Your task to perform on an android device: Open Chrome and go to the settings page Image 0: 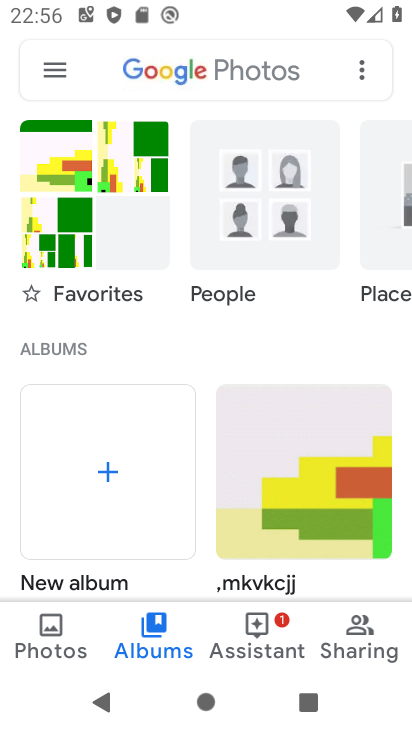
Step 0: press home button
Your task to perform on an android device: Open Chrome and go to the settings page Image 1: 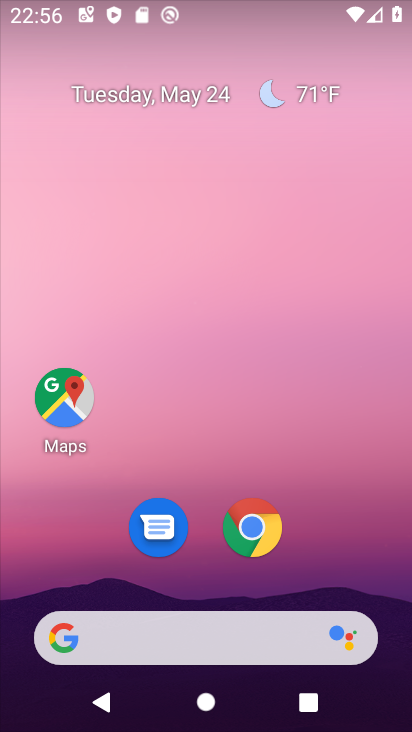
Step 1: click (250, 538)
Your task to perform on an android device: Open Chrome and go to the settings page Image 2: 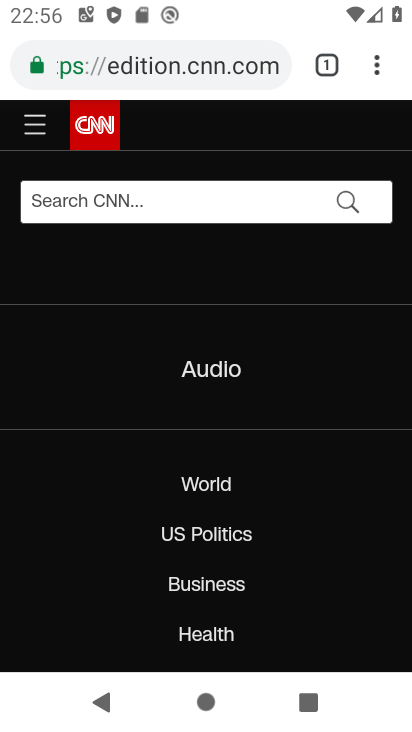
Step 2: click (386, 70)
Your task to perform on an android device: Open Chrome and go to the settings page Image 3: 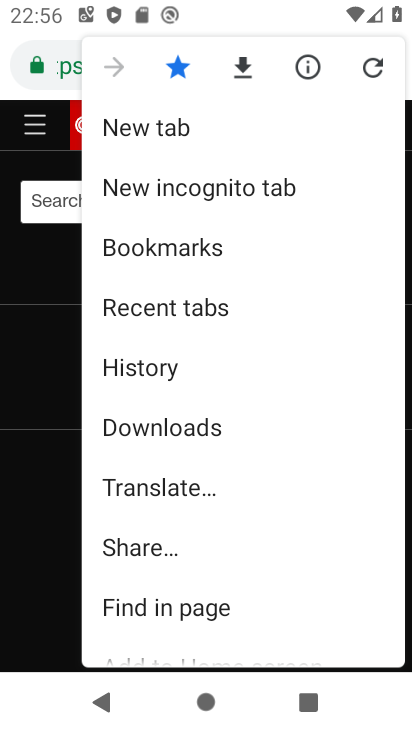
Step 3: drag from (155, 563) to (188, 208)
Your task to perform on an android device: Open Chrome and go to the settings page Image 4: 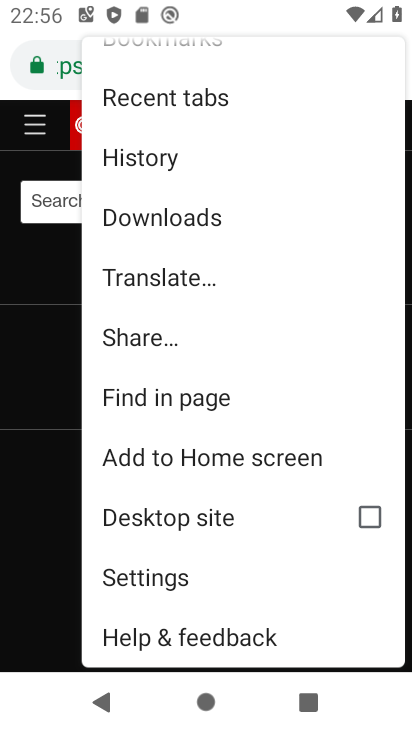
Step 4: click (177, 573)
Your task to perform on an android device: Open Chrome and go to the settings page Image 5: 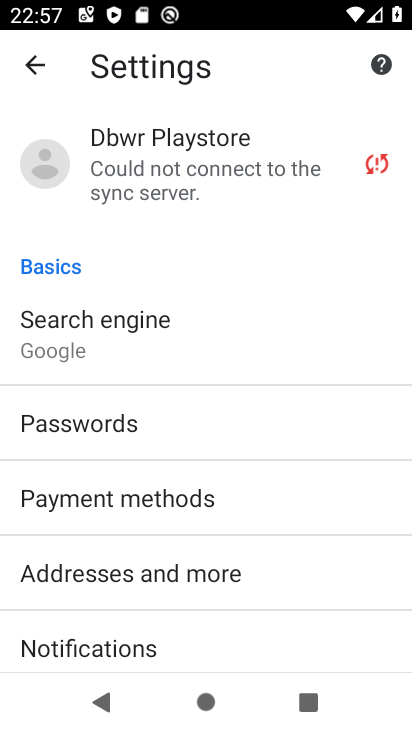
Step 5: task complete